Your task to perform on an android device: Search for lenovo thinkpad on amazon.com, select the first entry, add it to the cart, then select checkout. Image 0: 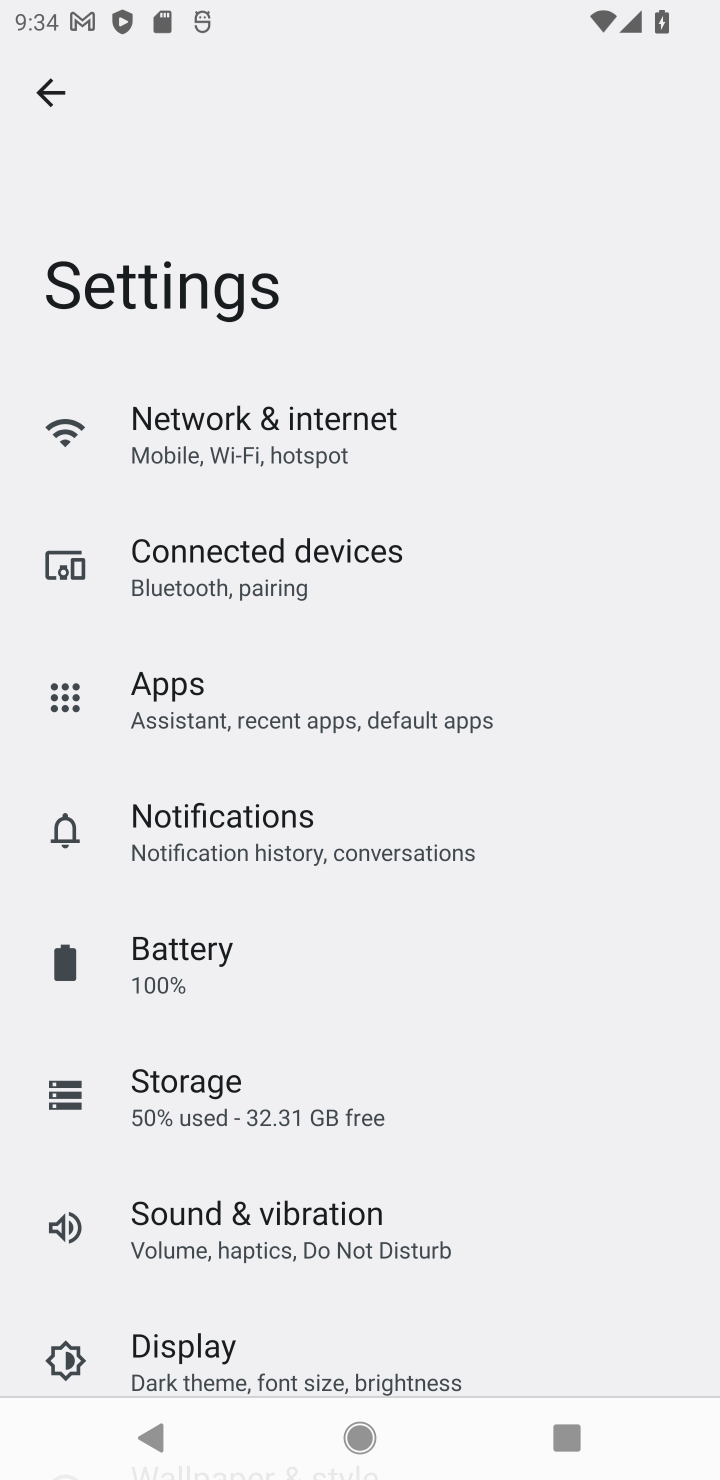
Step 0: press home button
Your task to perform on an android device: Search for lenovo thinkpad on amazon.com, select the first entry, add it to the cart, then select checkout. Image 1: 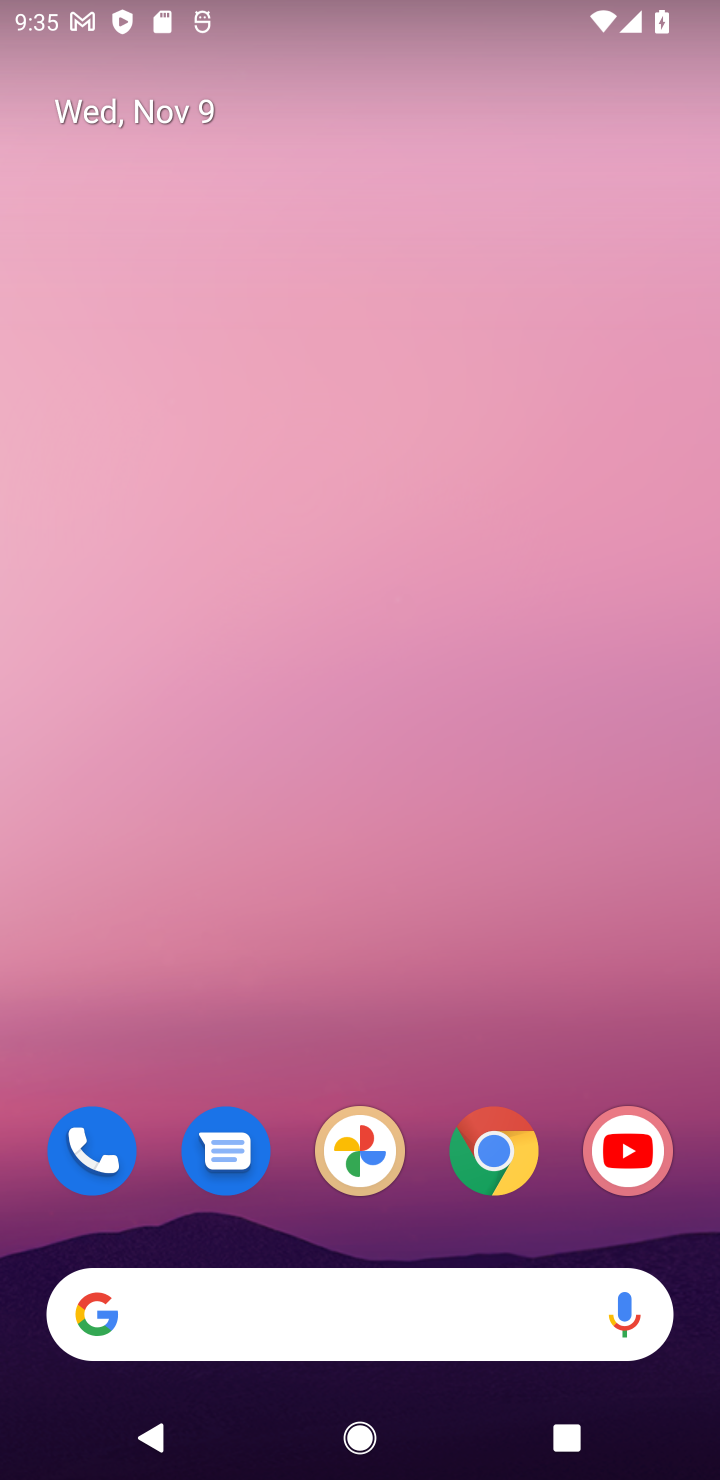
Step 1: click (461, 1166)
Your task to perform on an android device: Search for lenovo thinkpad on amazon.com, select the first entry, add it to the cart, then select checkout. Image 2: 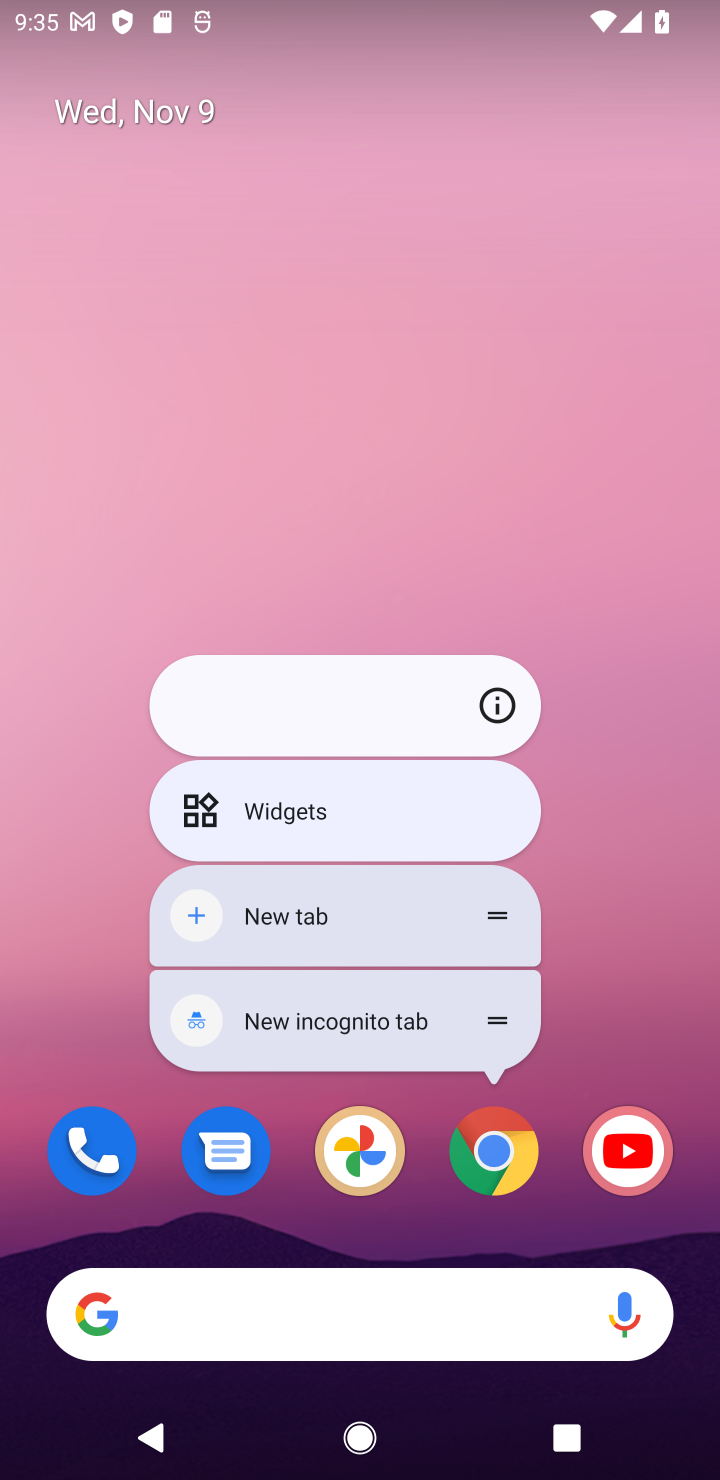
Step 2: click (494, 1144)
Your task to perform on an android device: Search for lenovo thinkpad on amazon.com, select the first entry, add it to the cart, then select checkout. Image 3: 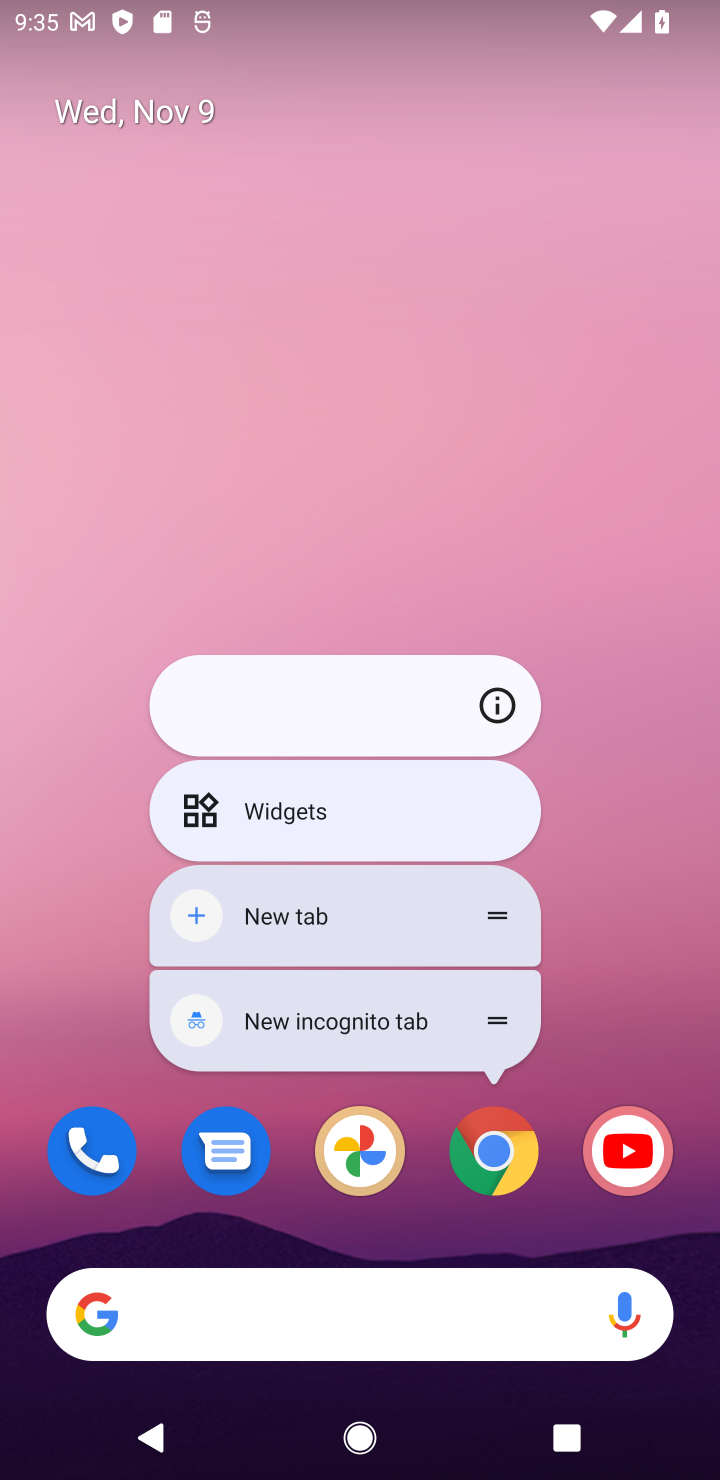
Step 3: click (494, 1144)
Your task to perform on an android device: Search for lenovo thinkpad on amazon.com, select the first entry, add it to the cart, then select checkout. Image 4: 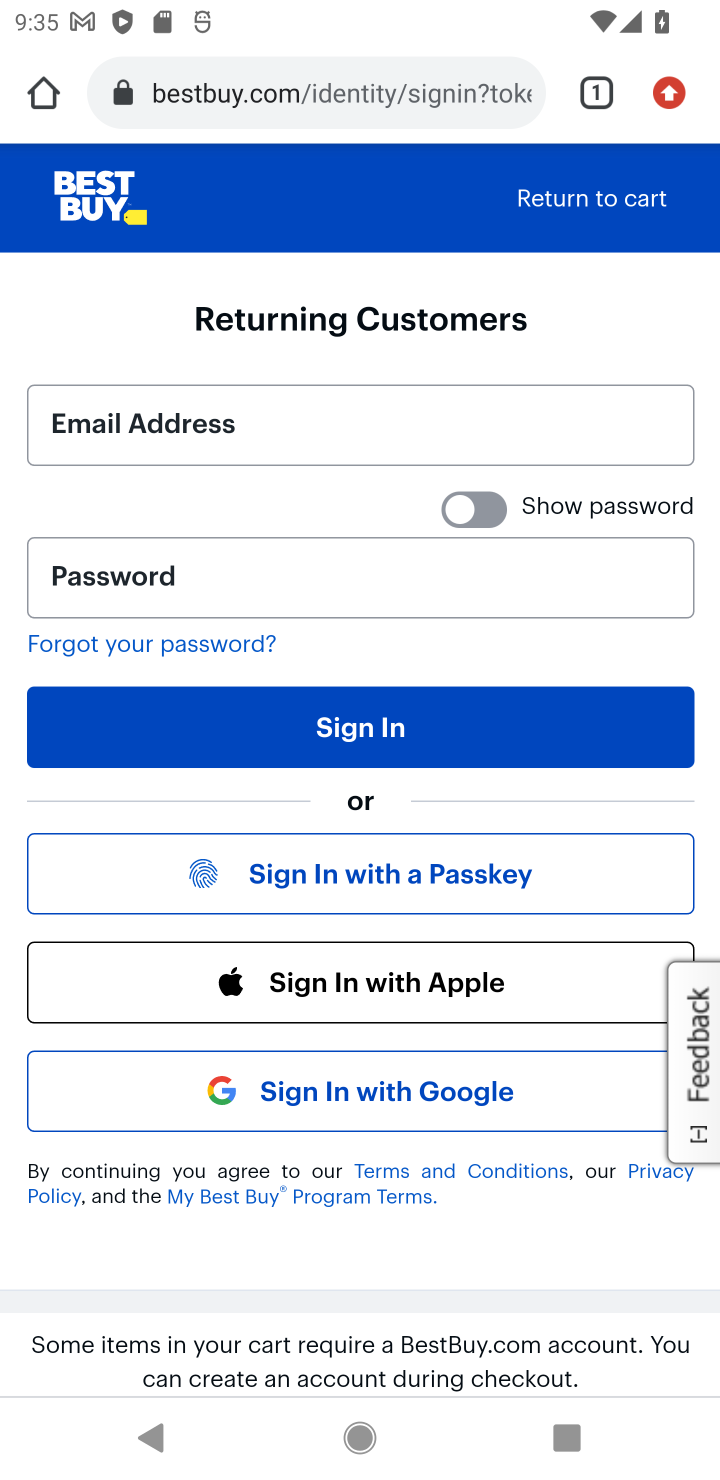
Step 4: click (300, 109)
Your task to perform on an android device: Search for lenovo thinkpad on amazon.com, select the first entry, add it to the cart, then select checkout. Image 5: 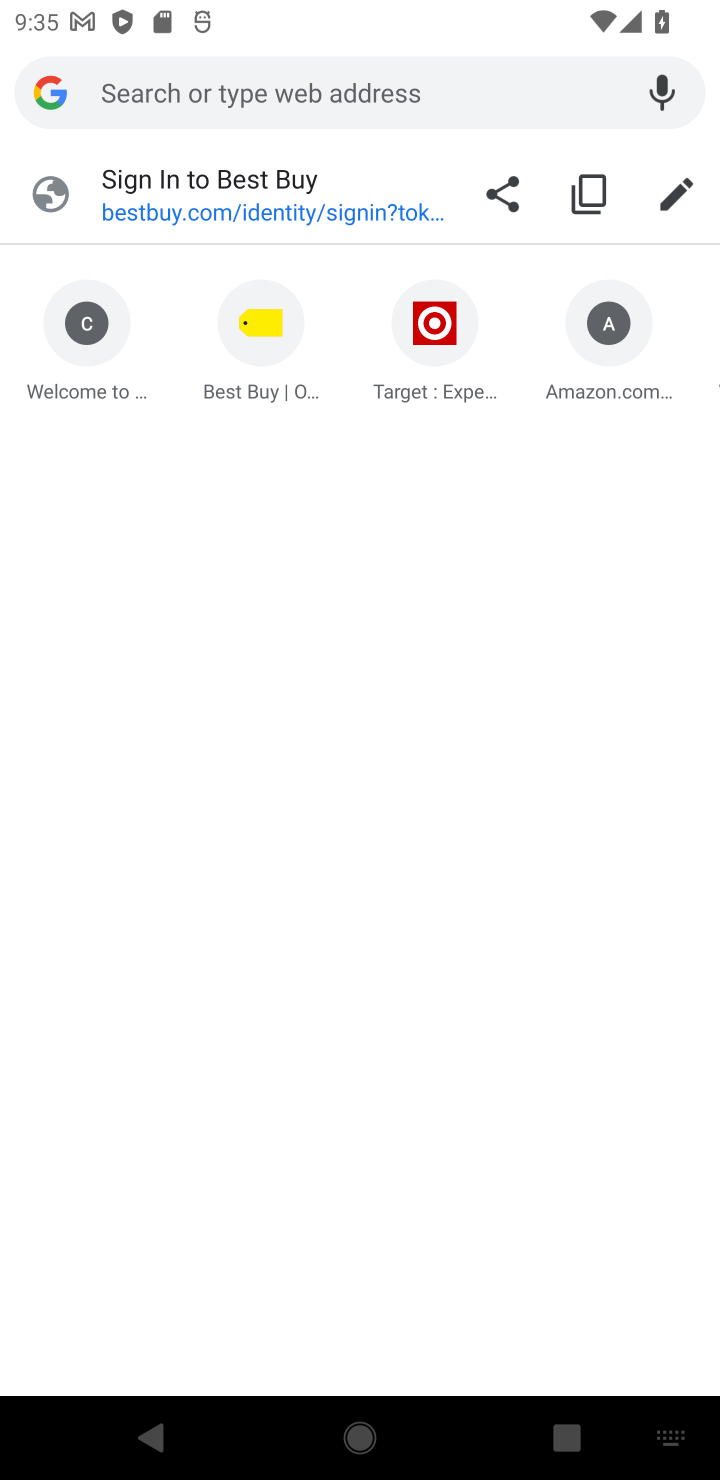
Step 5: type "amazon.com"
Your task to perform on an android device: Search for lenovo thinkpad on amazon.com, select the first entry, add it to the cart, then select checkout. Image 6: 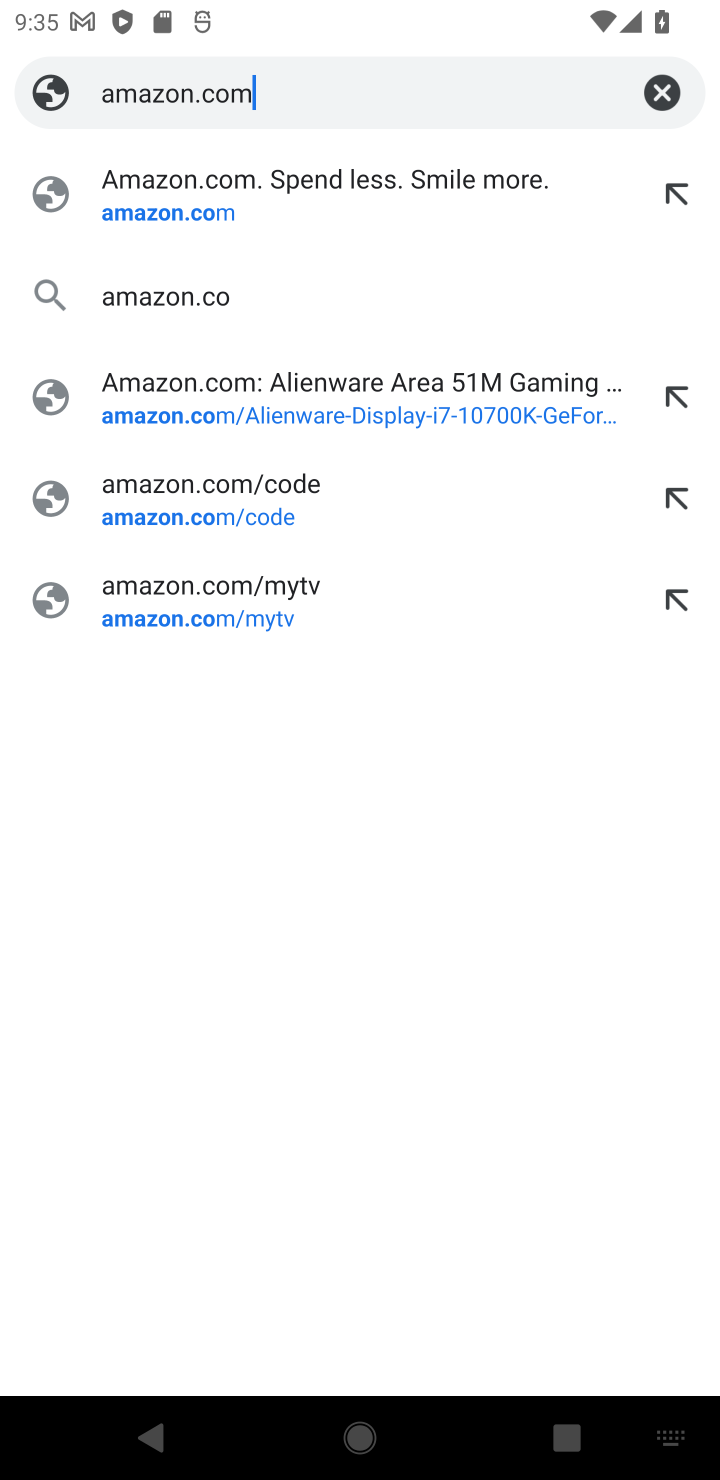
Step 6: press enter
Your task to perform on an android device: Search for lenovo thinkpad on amazon.com, select the first entry, add it to the cart, then select checkout. Image 7: 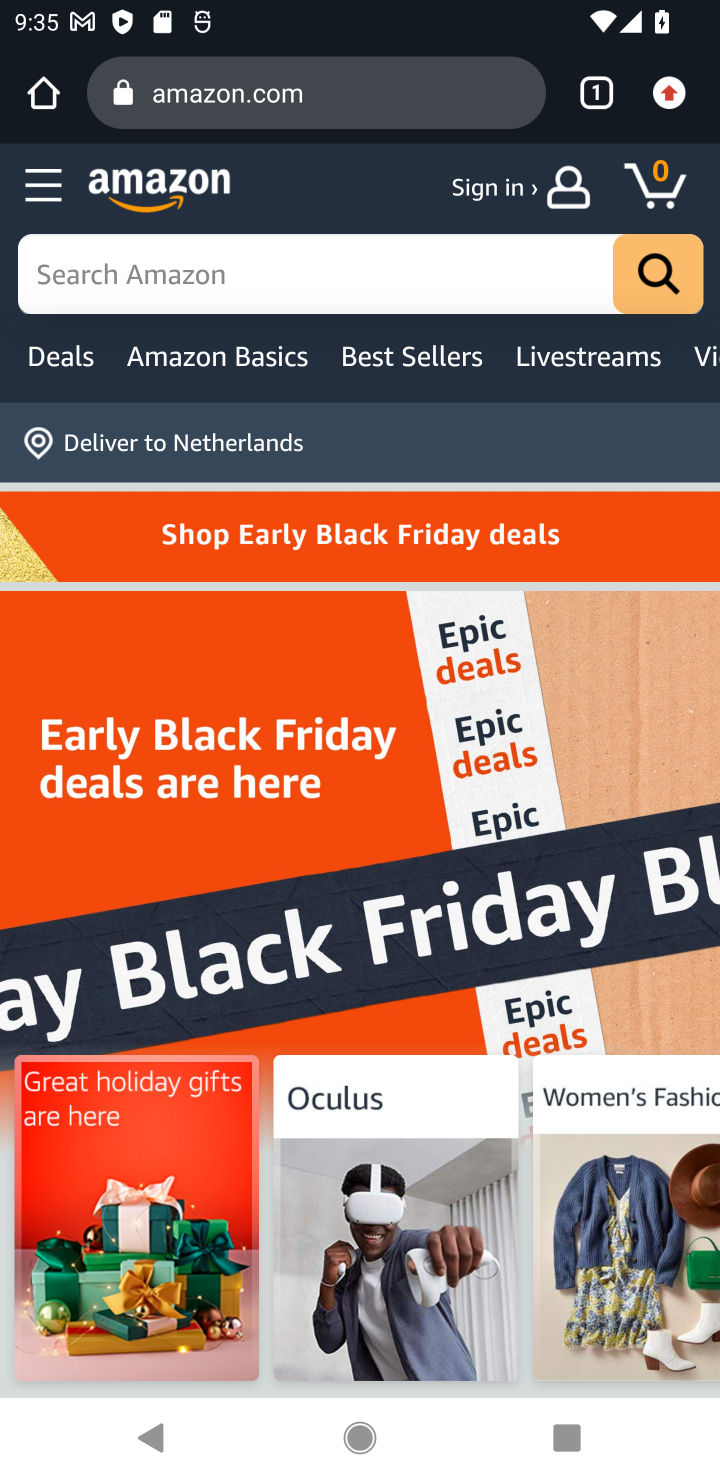
Step 7: click (245, 273)
Your task to perform on an android device: Search for lenovo thinkpad on amazon.com, select the first entry, add it to the cart, then select checkout. Image 8: 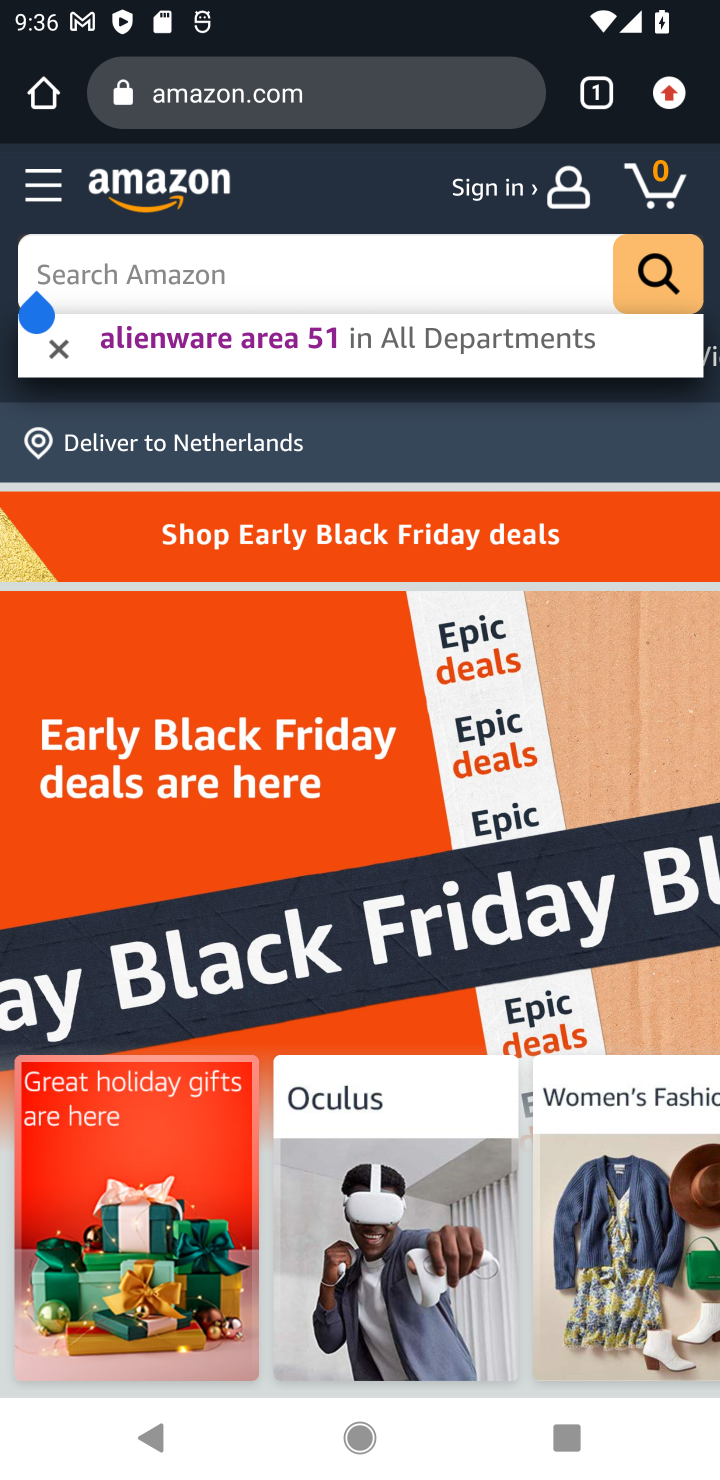
Step 8: type "lenovo thinkpad"
Your task to perform on an android device: Search for lenovo thinkpad on amazon.com, select the first entry, add it to the cart, then select checkout. Image 9: 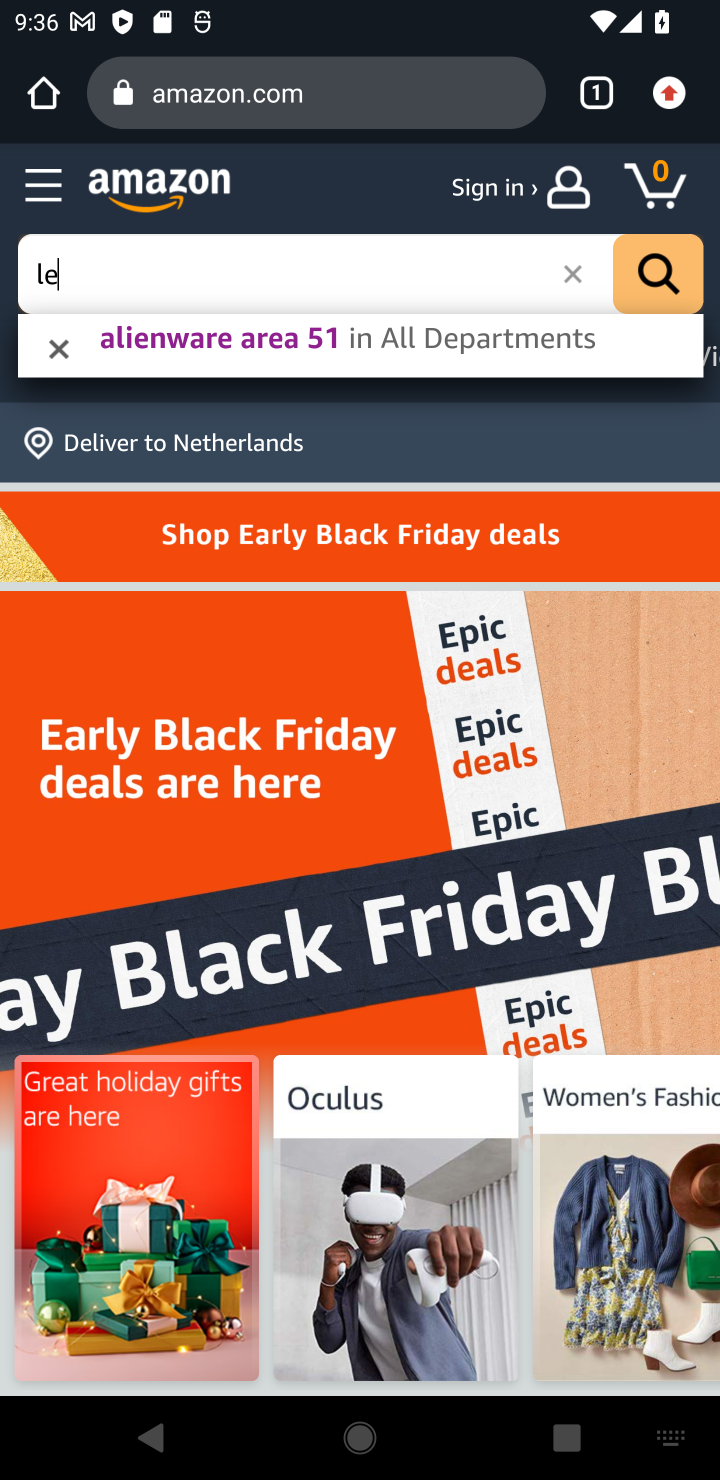
Step 9: press enter
Your task to perform on an android device: Search for lenovo thinkpad on amazon.com, select the first entry, add it to the cart, then select checkout. Image 10: 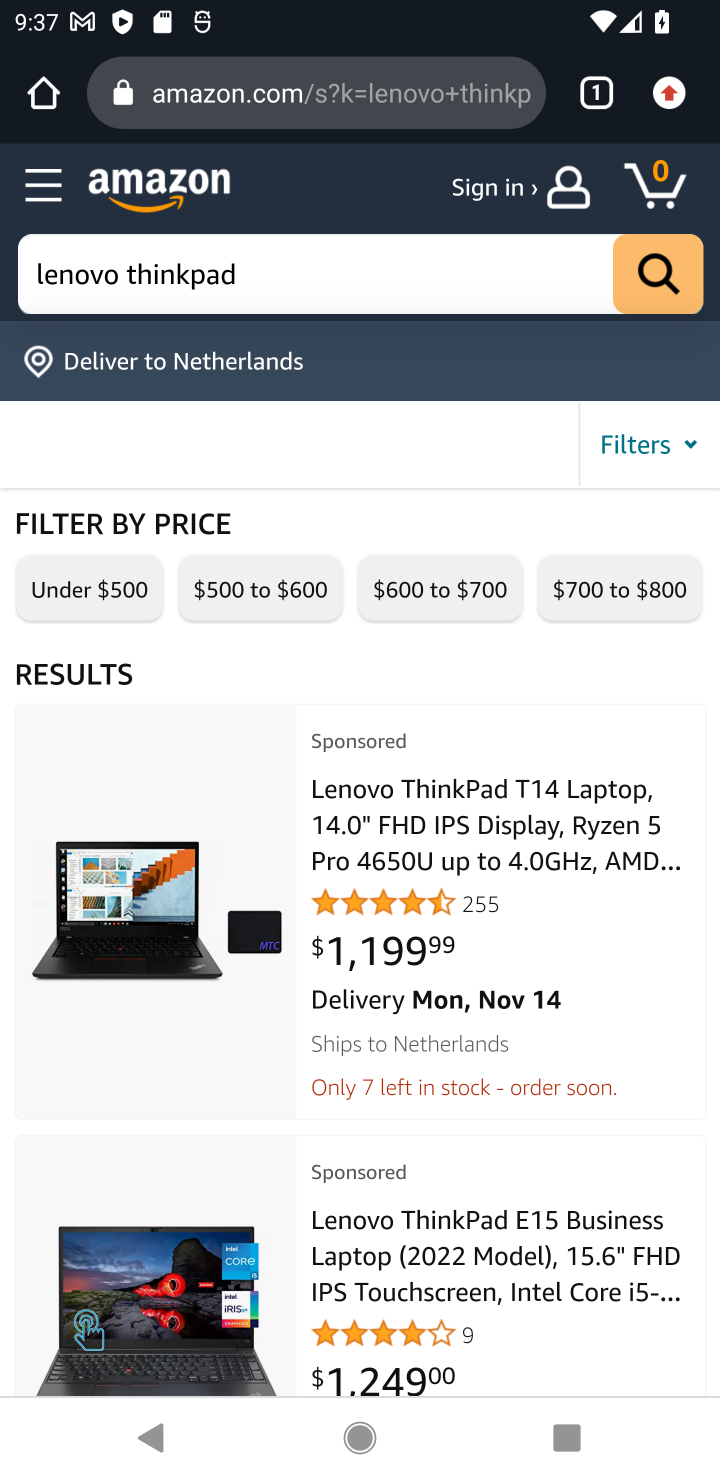
Step 10: click (181, 916)
Your task to perform on an android device: Search for lenovo thinkpad on amazon.com, select the first entry, add it to the cart, then select checkout. Image 11: 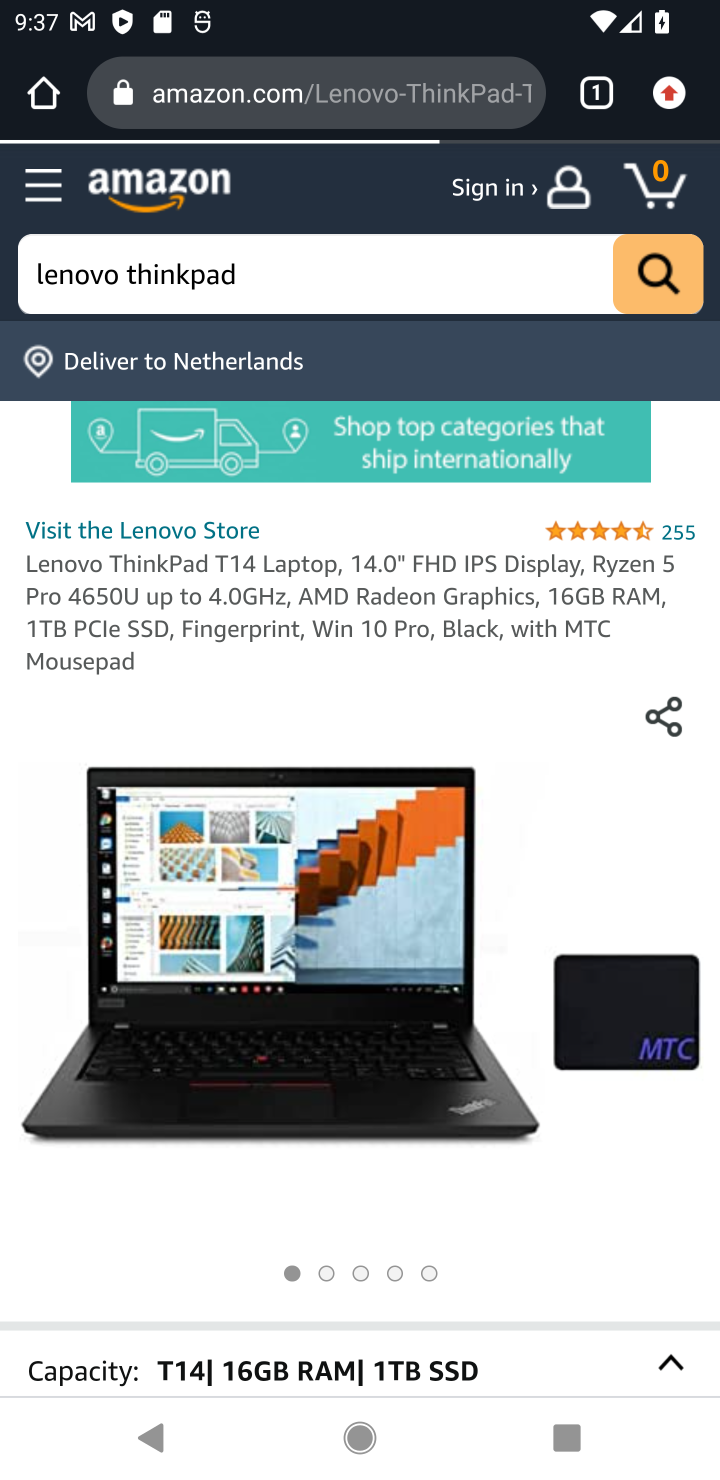
Step 11: drag from (556, 1129) to (601, 544)
Your task to perform on an android device: Search for lenovo thinkpad on amazon.com, select the first entry, add it to the cart, then select checkout. Image 12: 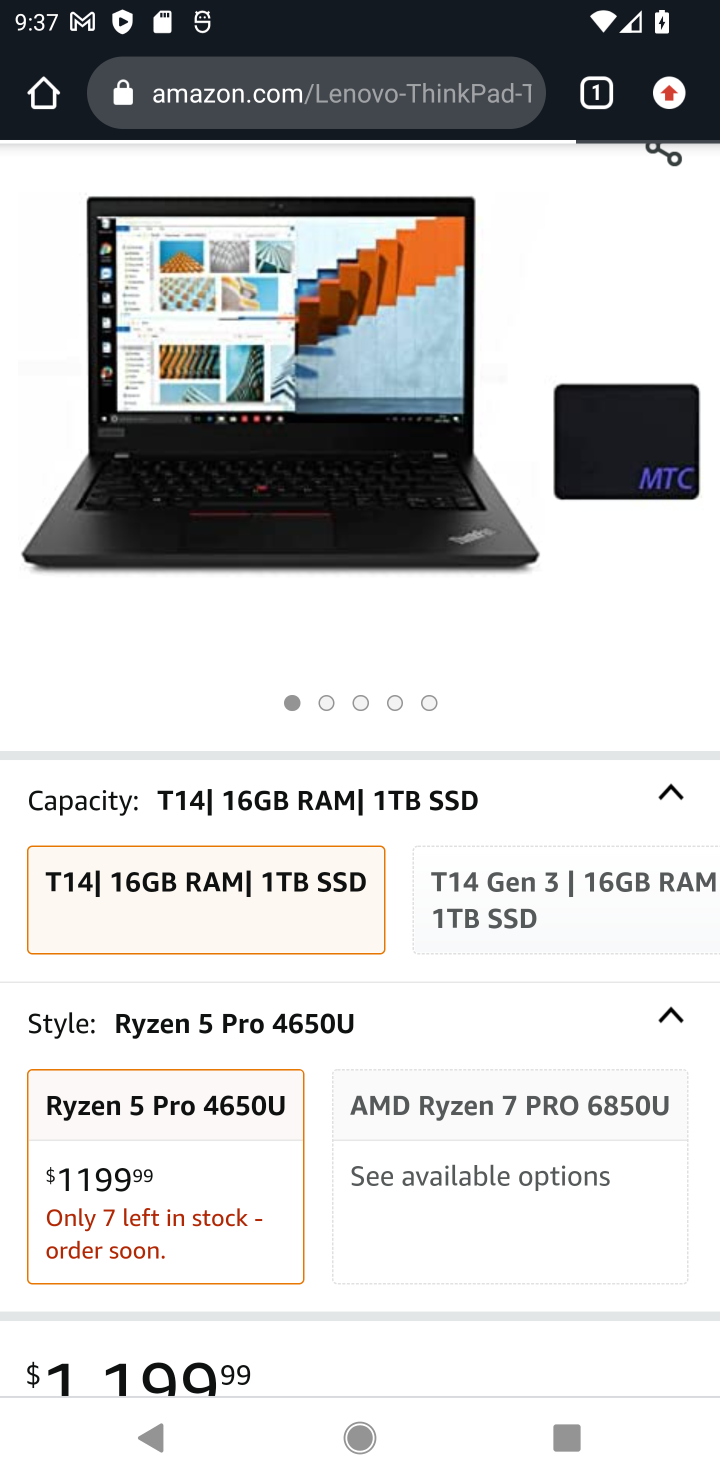
Step 12: drag from (453, 875) to (467, 697)
Your task to perform on an android device: Search for lenovo thinkpad on amazon.com, select the first entry, add it to the cart, then select checkout. Image 13: 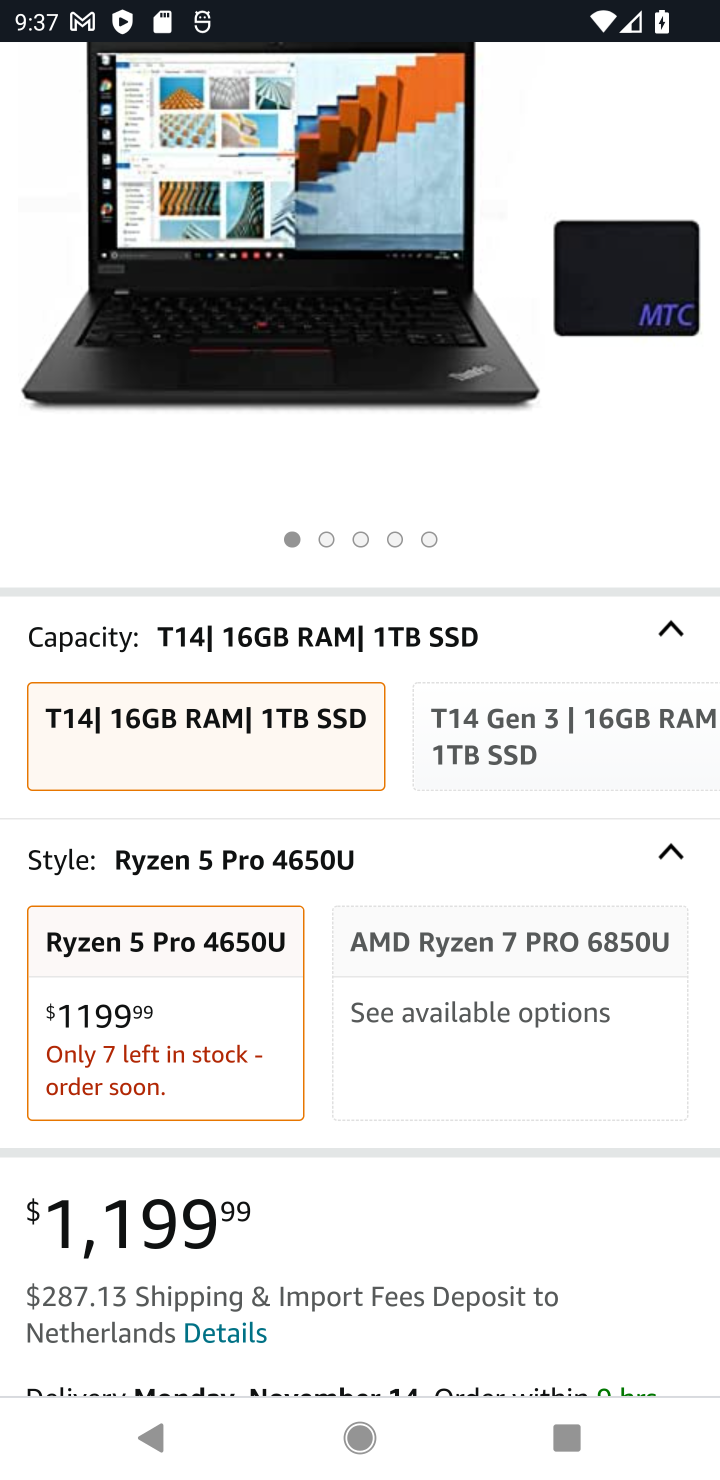
Step 13: drag from (558, 1069) to (706, 520)
Your task to perform on an android device: Search for lenovo thinkpad on amazon.com, select the first entry, add it to the cart, then select checkout. Image 14: 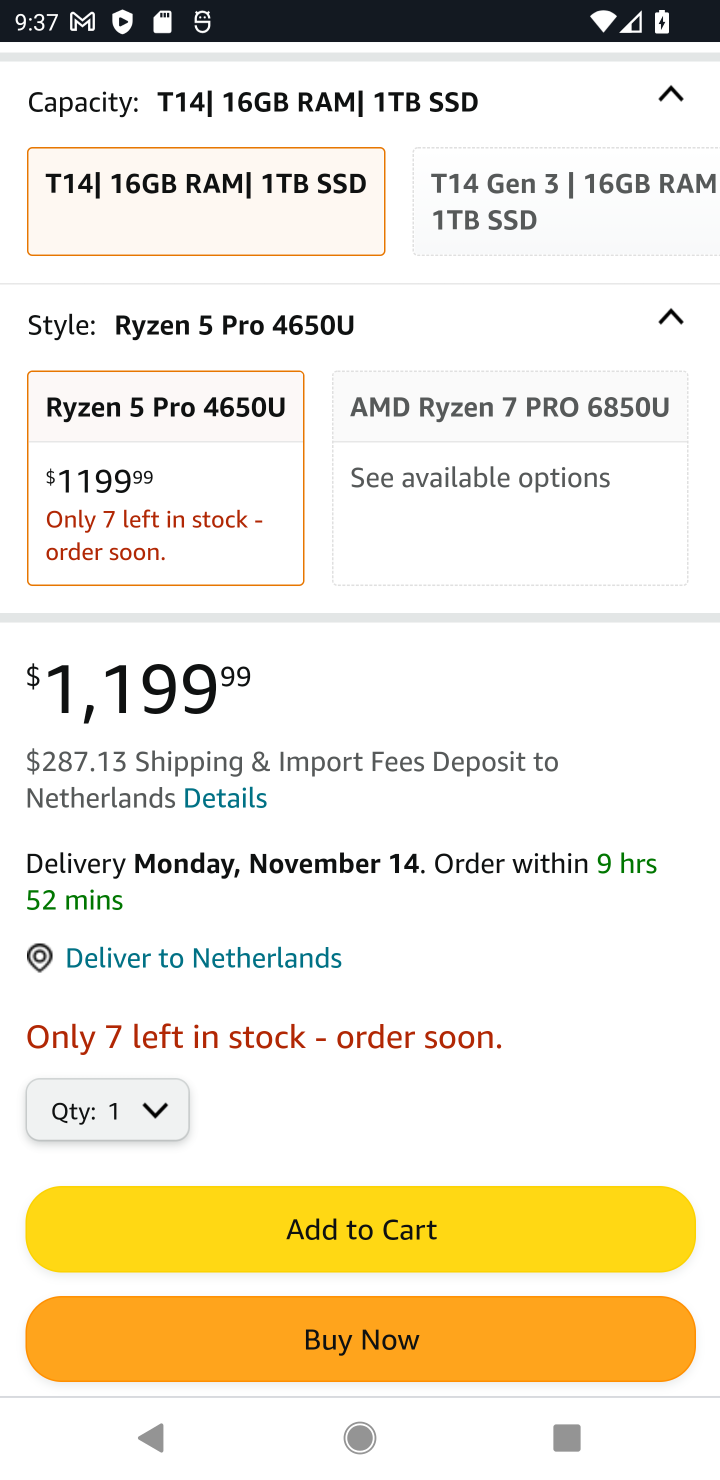
Step 14: click (374, 1223)
Your task to perform on an android device: Search for lenovo thinkpad on amazon.com, select the first entry, add it to the cart, then select checkout. Image 15: 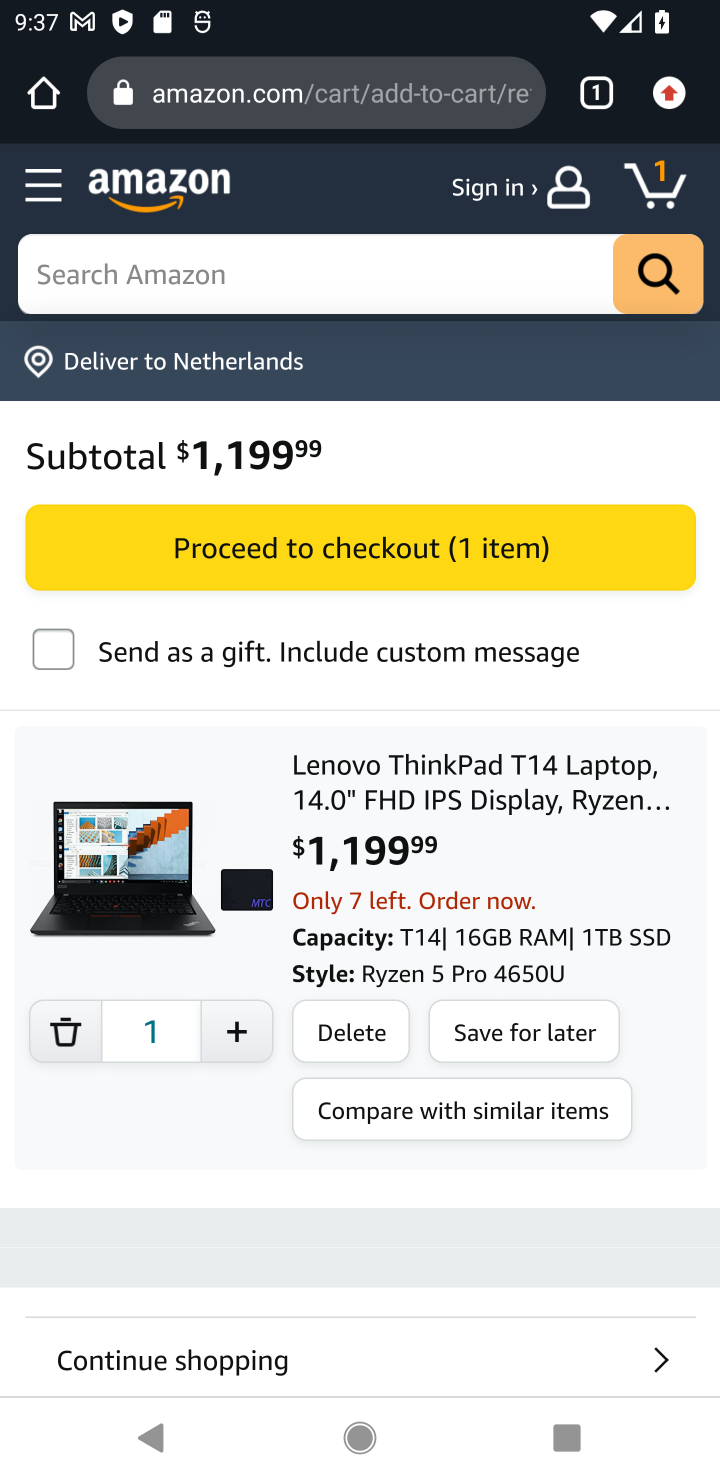
Step 15: click (229, 545)
Your task to perform on an android device: Search for lenovo thinkpad on amazon.com, select the first entry, add it to the cart, then select checkout. Image 16: 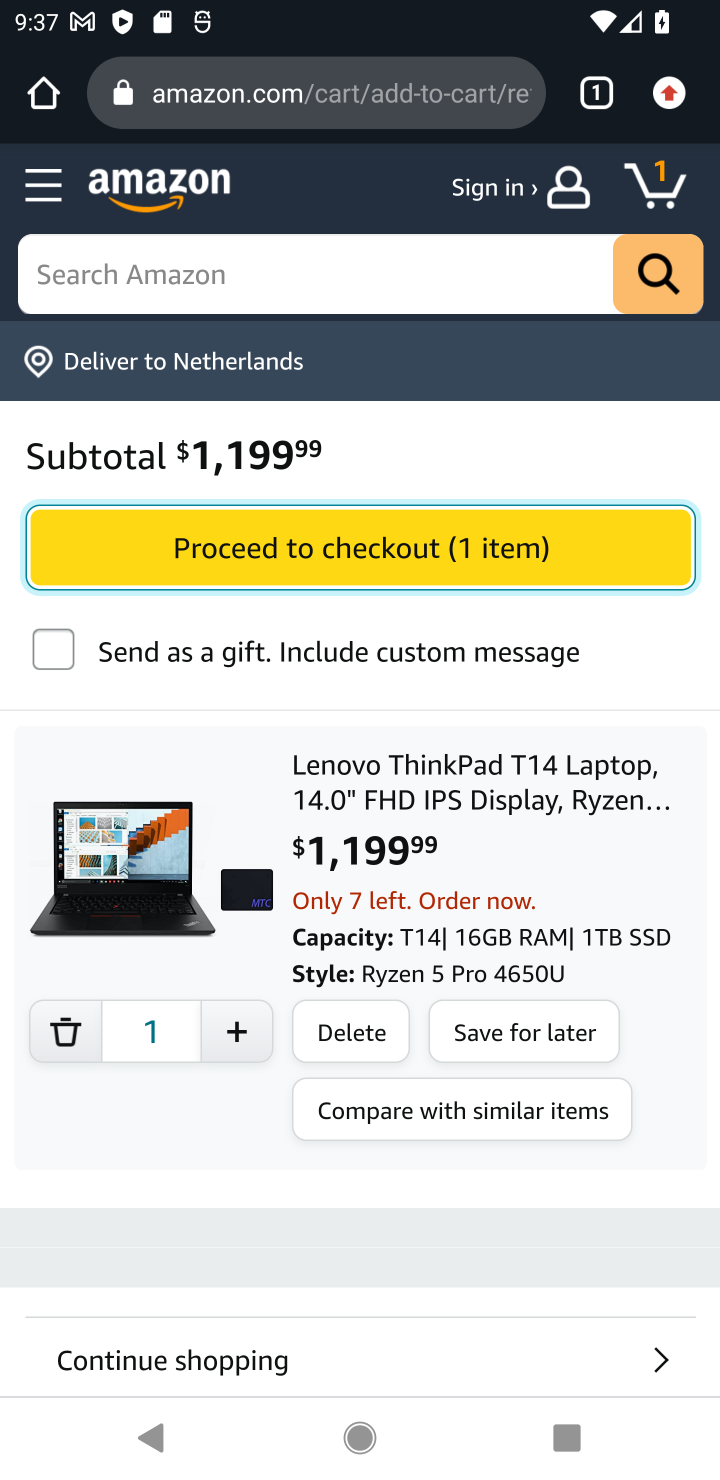
Step 16: click (262, 541)
Your task to perform on an android device: Search for lenovo thinkpad on amazon.com, select the first entry, add it to the cart, then select checkout. Image 17: 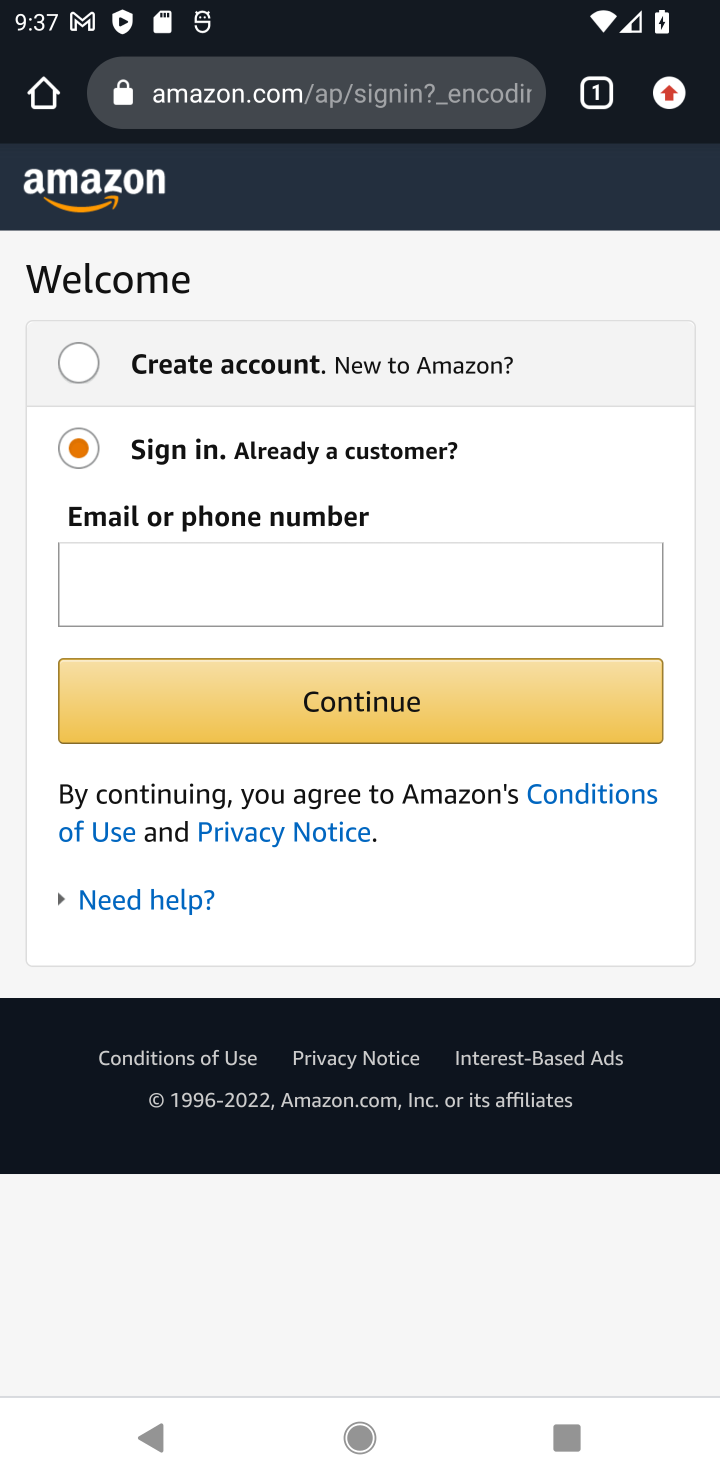
Step 17: task complete